Your task to perform on an android device: toggle show notifications on the lock screen Image 0: 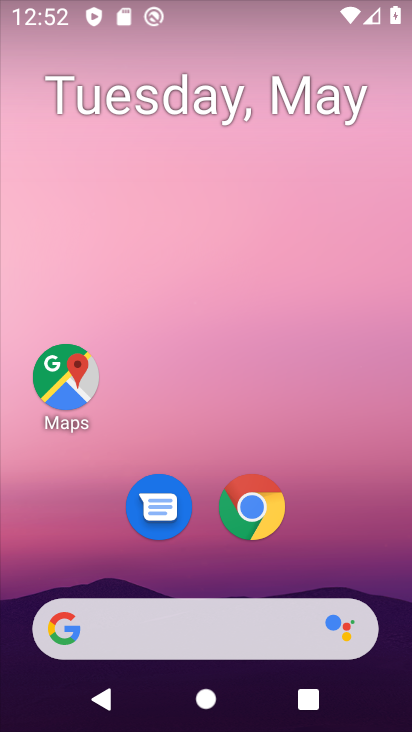
Step 0: drag from (315, 545) to (341, 173)
Your task to perform on an android device: toggle show notifications on the lock screen Image 1: 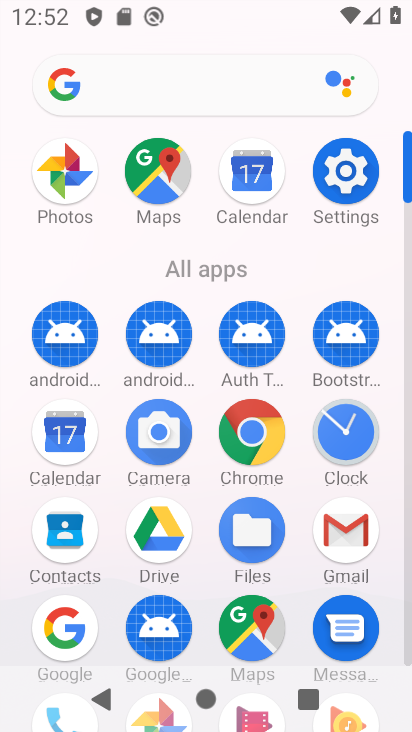
Step 1: click (346, 162)
Your task to perform on an android device: toggle show notifications on the lock screen Image 2: 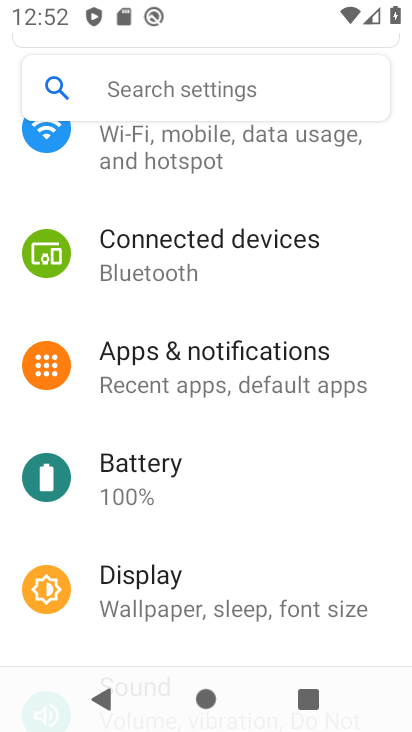
Step 2: click (260, 385)
Your task to perform on an android device: toggle show notifications on the lock screen Image 3: 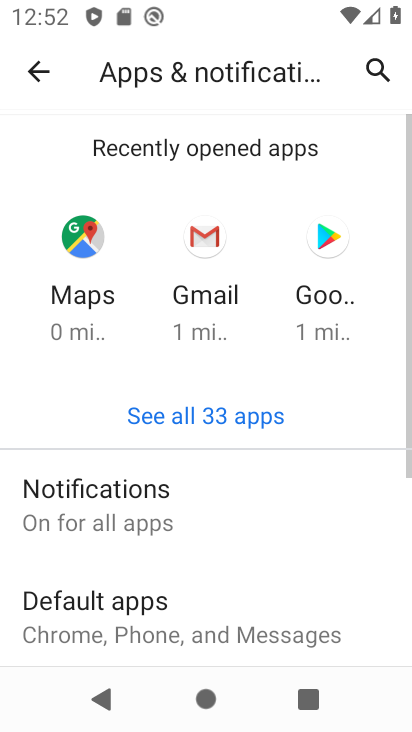
Step 3: click (177, 510)
Your task to perform on an android device: toggle show notifications on the lock screen Image 4: 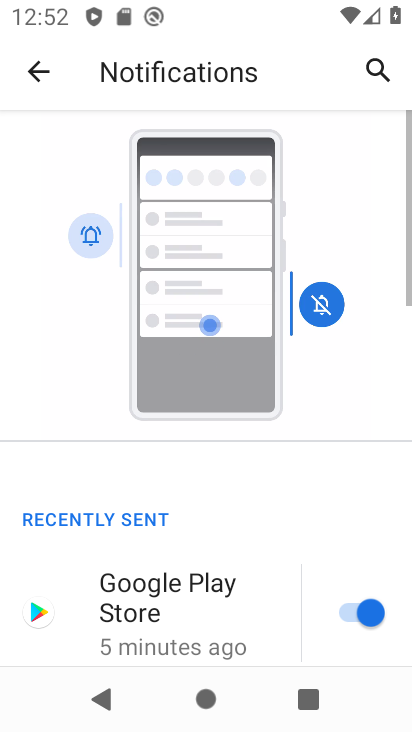
Step 4: drag from (187, 645) to (193, 292)
Your task to perform on an android device: toggle show notifications on the lock screen Image 5: 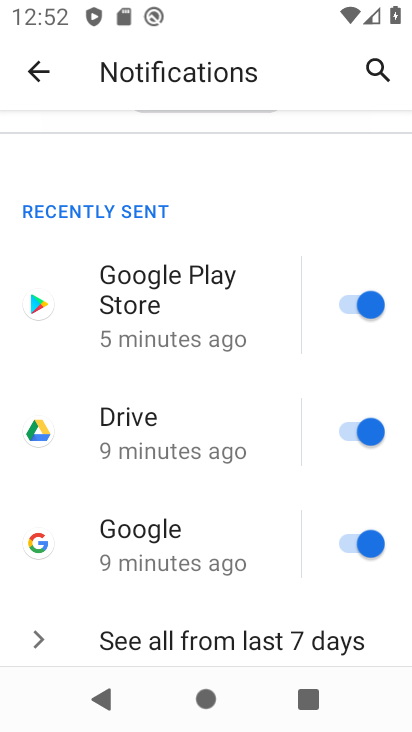
Step 5: drag from (157, 641) to (189, 285)
Your task to perform on an android device: toggle show notifications on the lock screen Image 6: 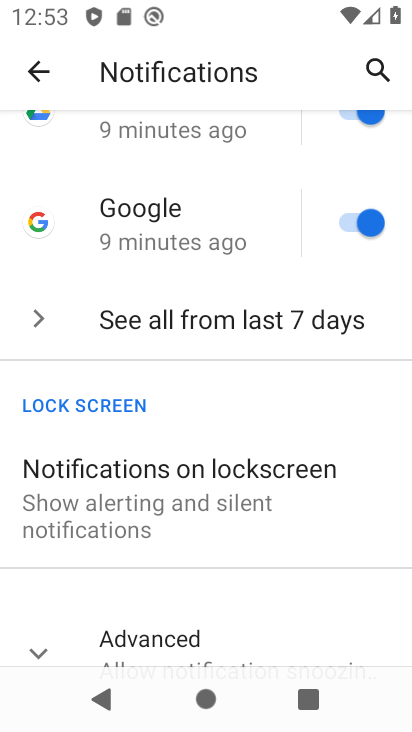
Step 6: click (186, 483)
Your task to perform on an android device: toggle show notifications on the lock screen Image 7: 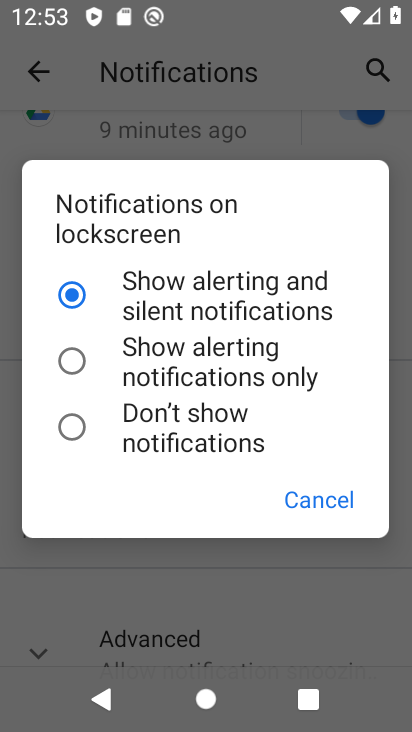
Step 7: click (117, 355)
Your task to perform on an android device: toggle show notifications on the lock screen Image 8: 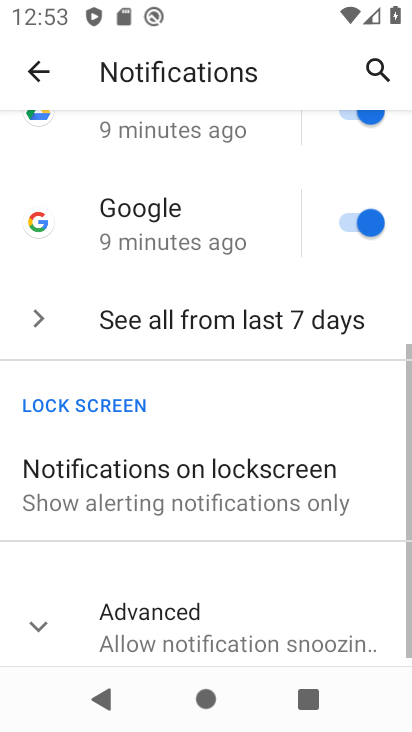
Step 8: task complete